Your task to perform on an android device: add a label to a message in the gmail app Image 0: 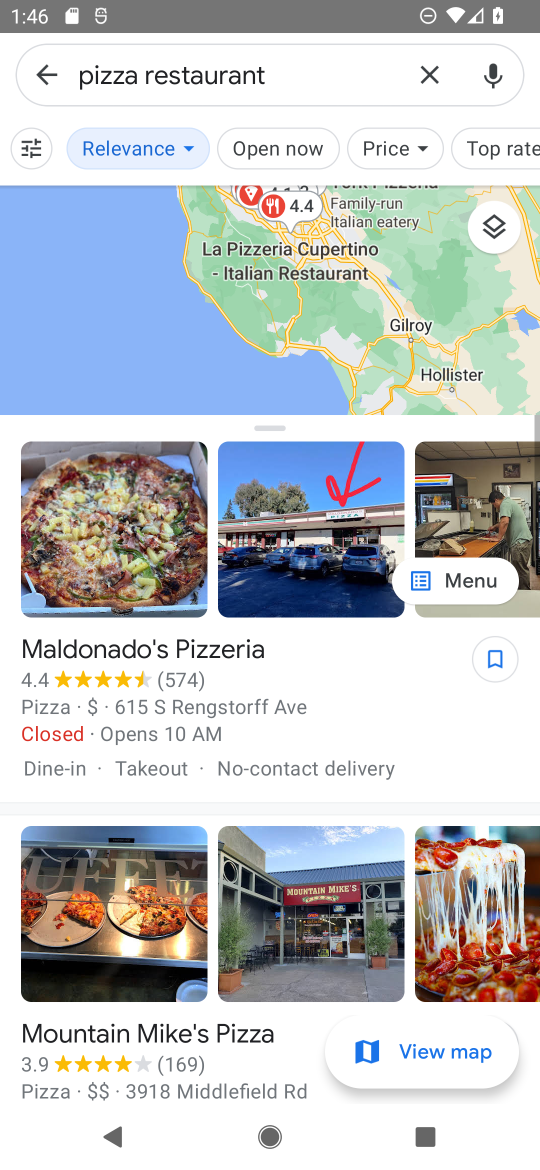
Step 0: press back button
Your task to perform on an android device: add a label to a message in the gmail app Image 1: 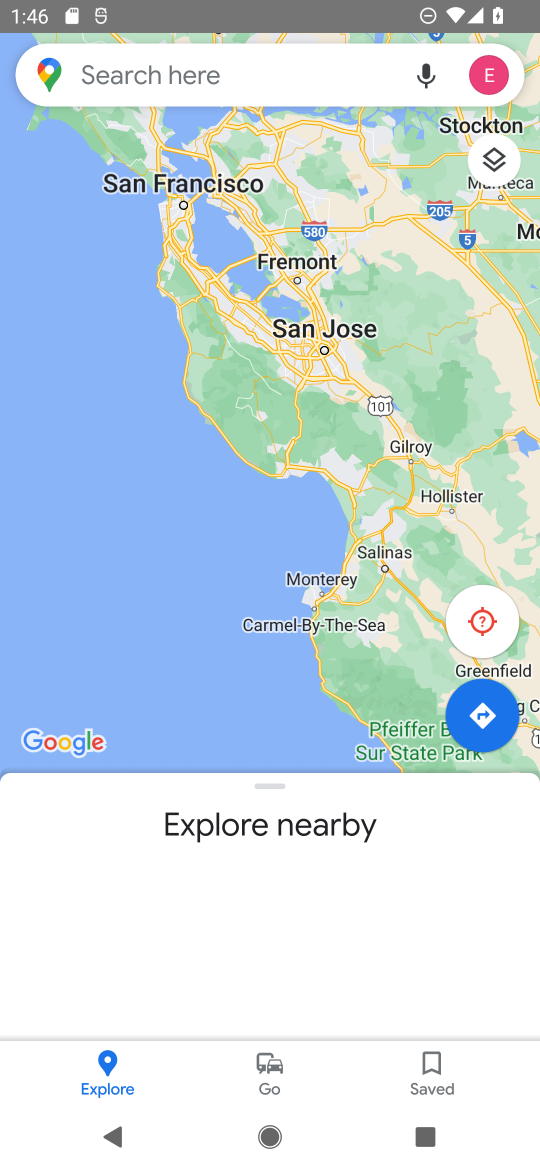
Step 1: press home button
Your task to perform on an android device: add a label to a message in the gmail app Image 2: 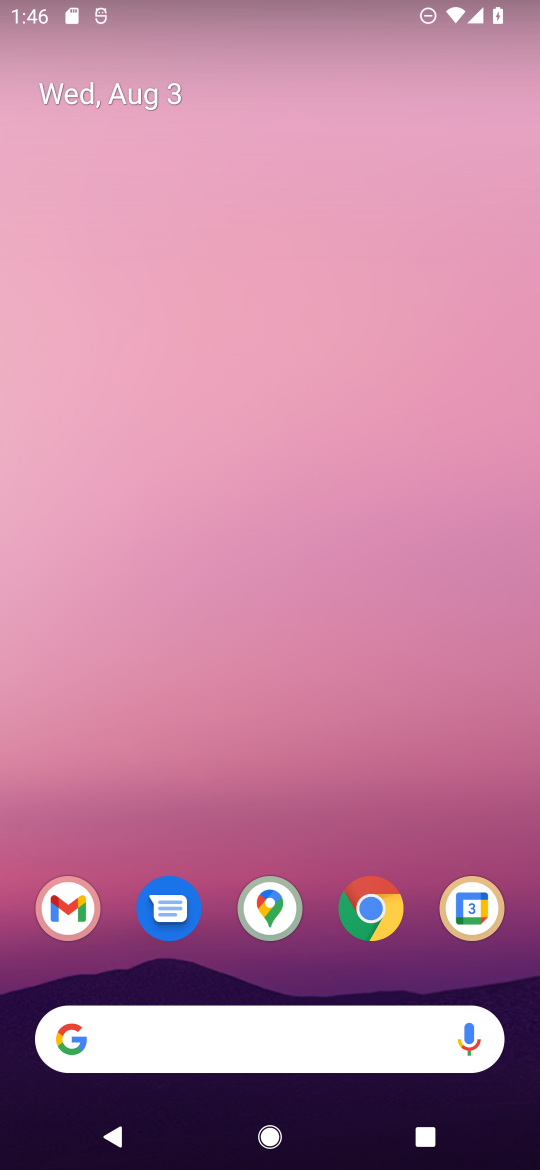
Step 2: click (66, 913)
Your task to perform on an android device: add a label to a message in the gmail app Image 3: 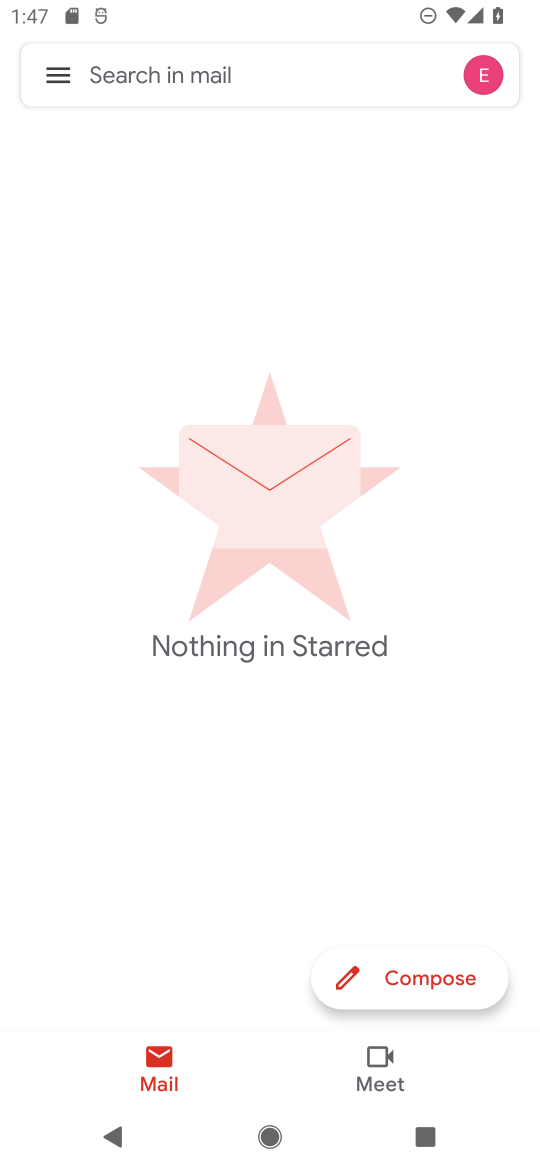
Step 3: click (68, 70)
Your task to perform on an android device: add a label to a message in the gmail app Image 4: 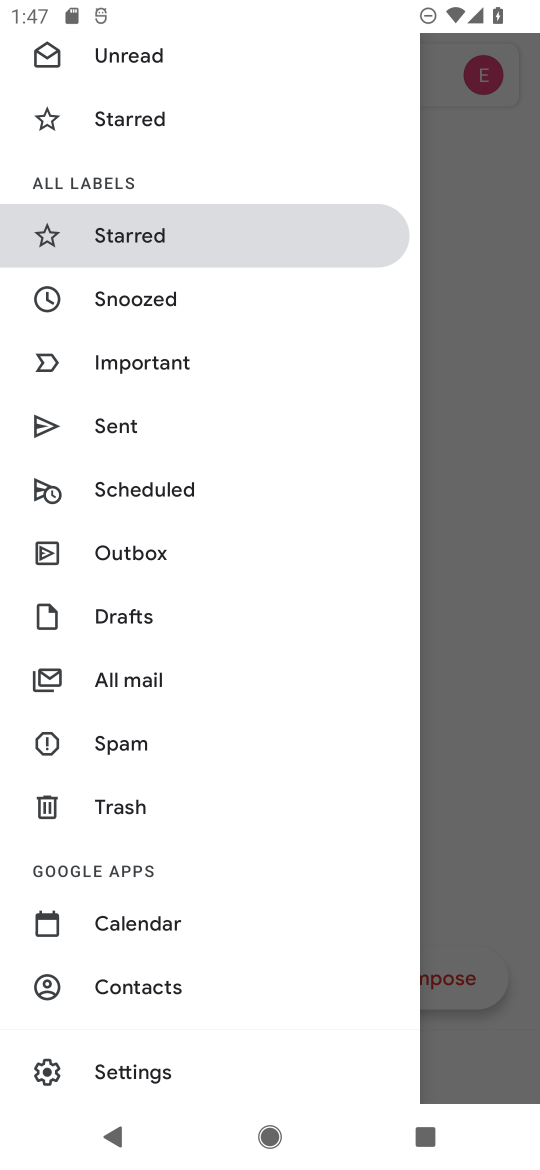
Step 4: click (137, 674)
Your task to perform on an android device: add a label to a message in the gmail app Image 5: 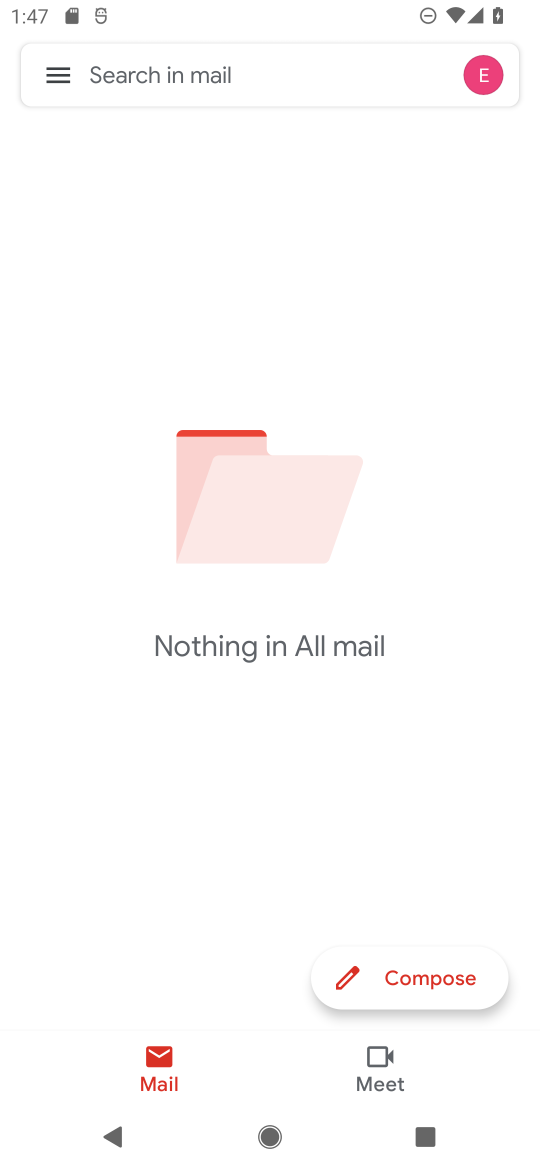
Step 5: task complete